Your task to perform on an android device: Open internet settings Image 0: 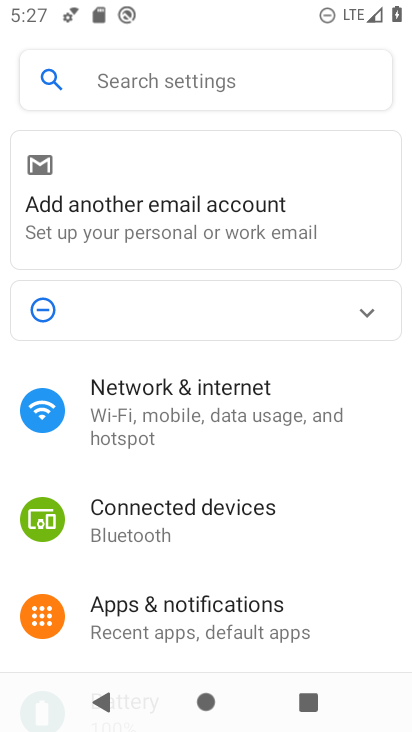
Step 0: click (198, 426)
Your task to perform on an android device: Open internet settings Image 1: 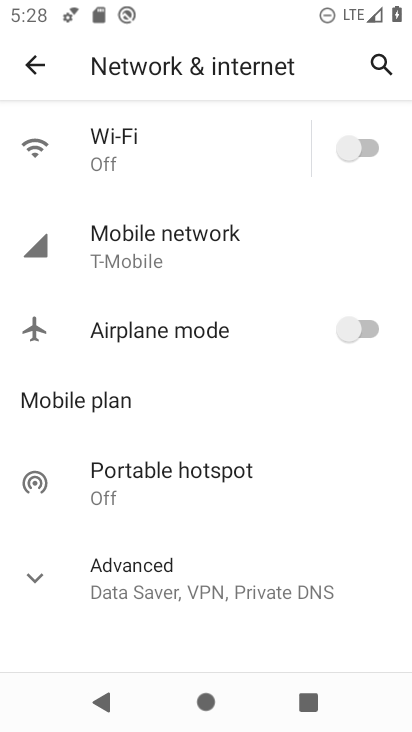
Step 1: drag from (221, 442) to (222, 231)
Your task to perform on an android device: Open internet settings Image 2: 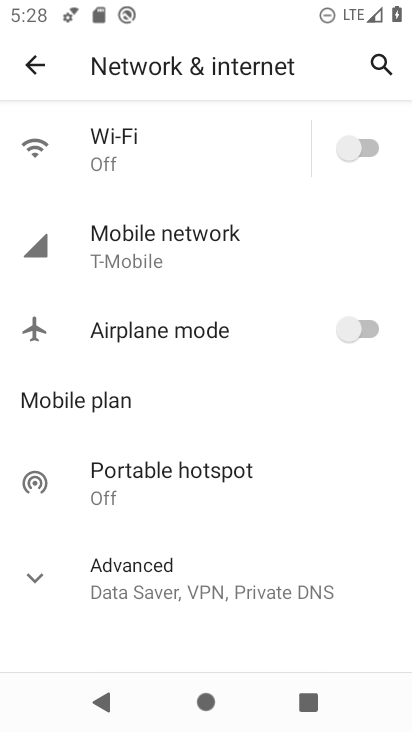
Step 2: click (40, 582)
Your task to perform on an android device: Open internet settings Image 3: 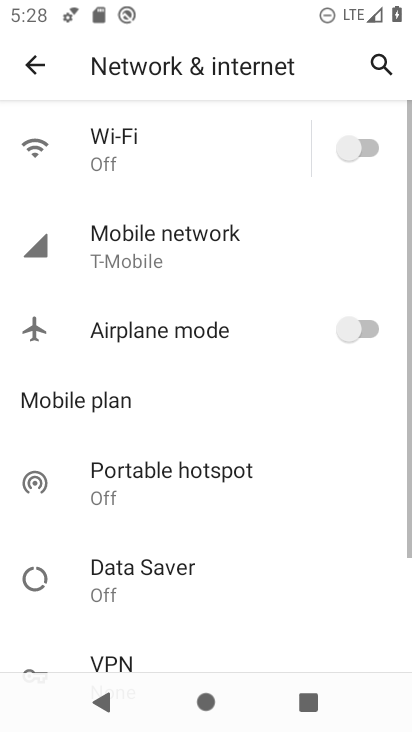
Step 3: task complete